Your task to perform on an android device: Play the last video I watched on Youtube Image 0: 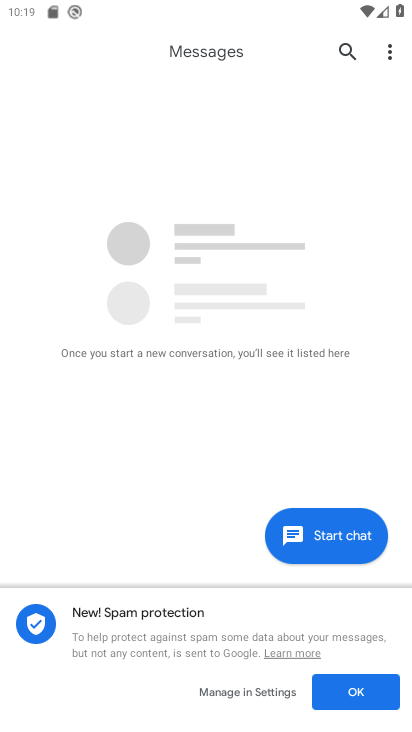
Step 0: drag from (356, 619) to (359, 200)
Your task to perform on an android device: Play the last video I watched on Youtube Image 1: 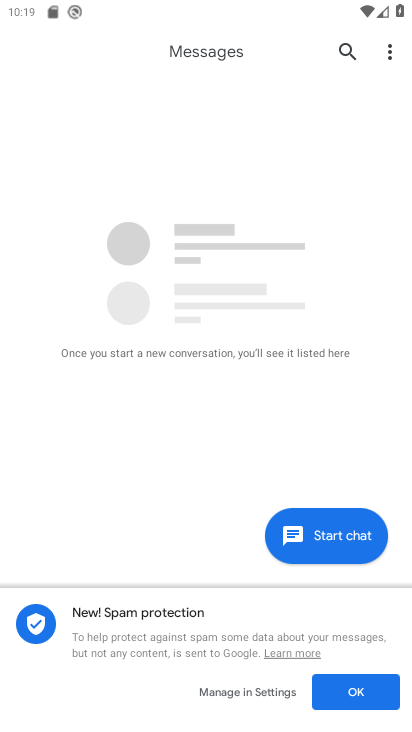
Step 1: press home button
Your task to perform on an android device: Play the last video I watched on Youtube Image 2: 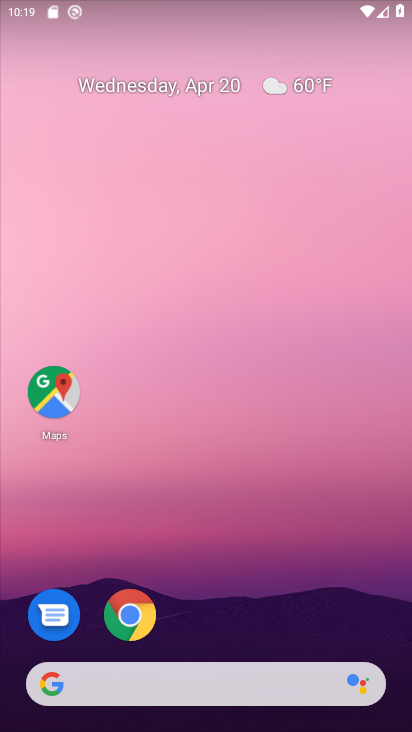
Step 2: drag from (389, 487) to (370, 186)
Your task to perform on an android device: Play the last video I watched on Youtube Image 3: 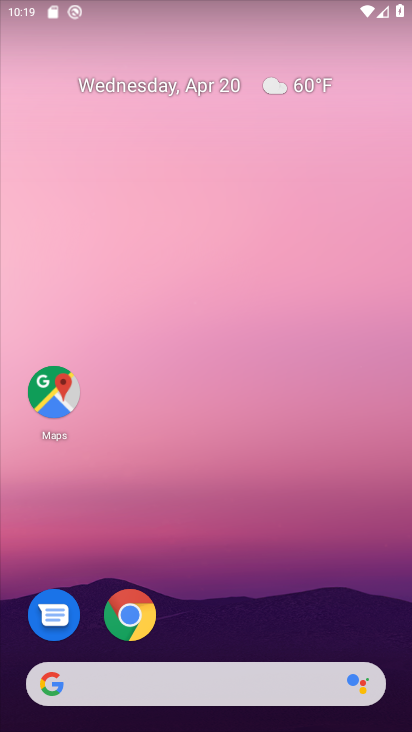
Step 3: drag from (388, 602) to (286, 153)
Your task to perform on an android device: Play the last video I watched on Youtube Image 4: 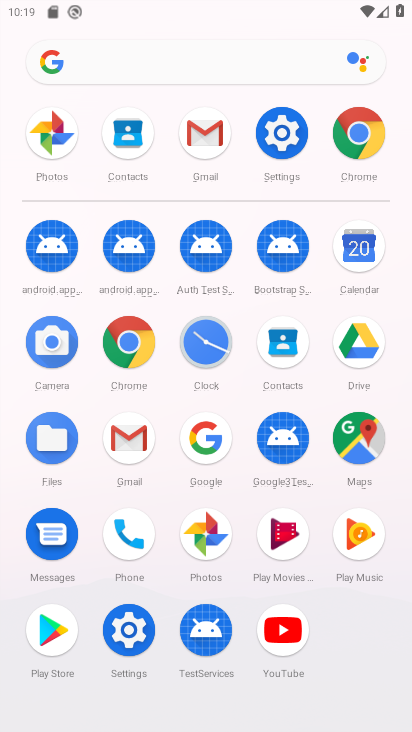
Step 4: click (277, 646)
Your task to perform on an android device: Play the last video I watched on Youtube Image 5: 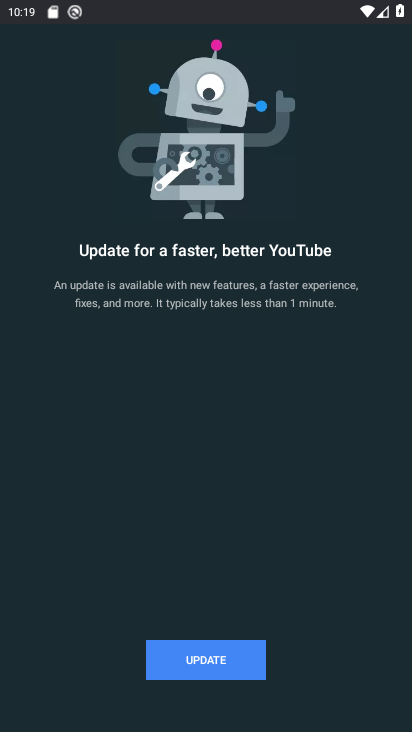
Step 5: click (211, 660)
Your task to perform on an android device: Play the last video I watched on Youtube Image 6: 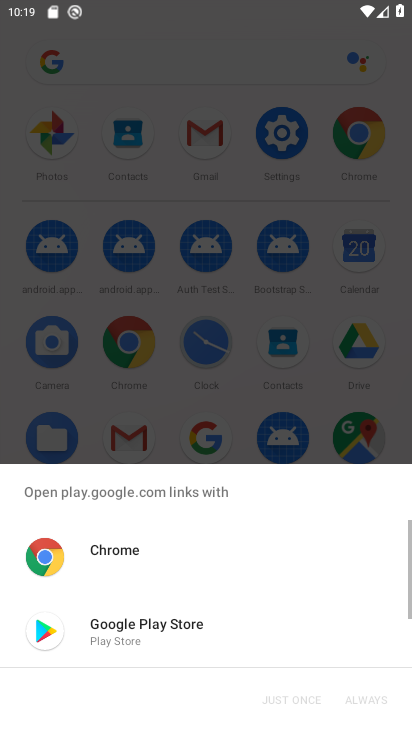
Step 6: click (174, 644)
Your task to perform on an android device: Play the last video I watched on Youtube Image 7: 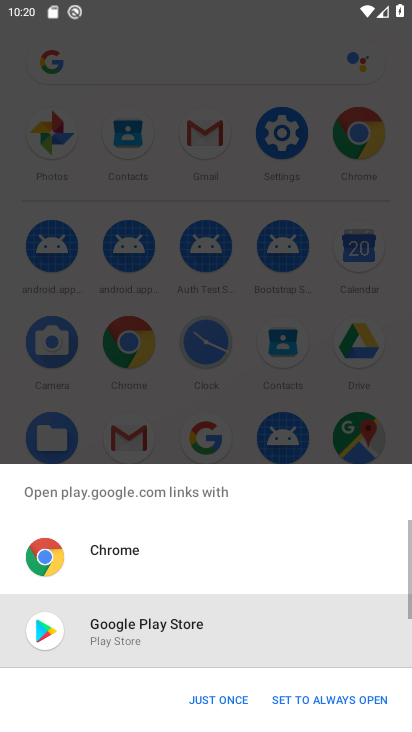
Step 7: click (206, 704)
Your task to perform on an android device: Play the last video I watched on Youtube Image 8: 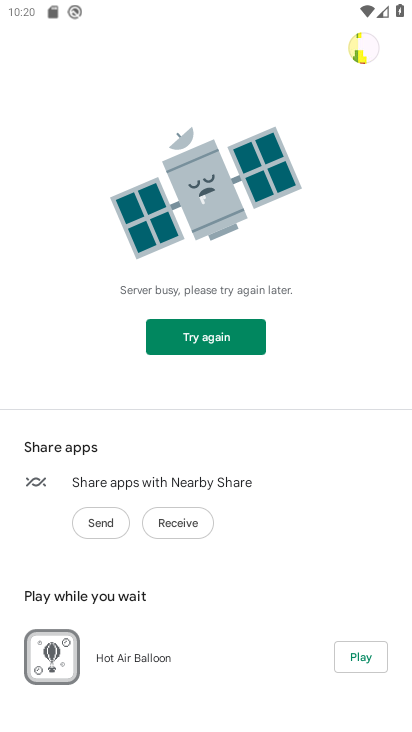
Step 8: task complete